Your task to perform on an android device: Open Chrome and go to the settings page Image 0: 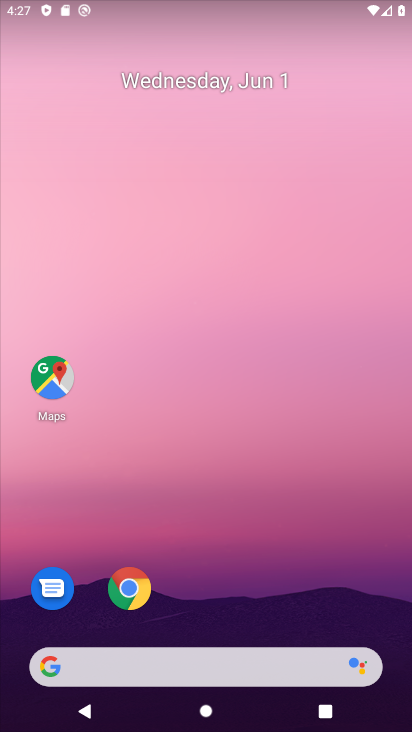
Step 0: click (131, 587)
Your task to perform on an android device: Open Chrome and go to the settings page Image 1: 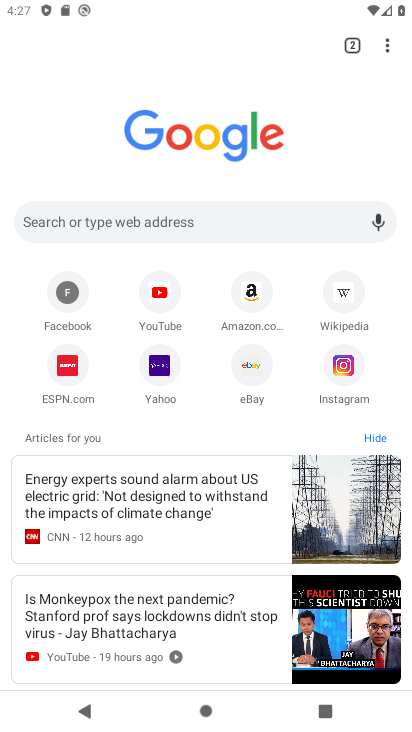
Step 1: click (388, 42)
Your task to perform on an android device: Open Chrome and go to the settings page Image 2: 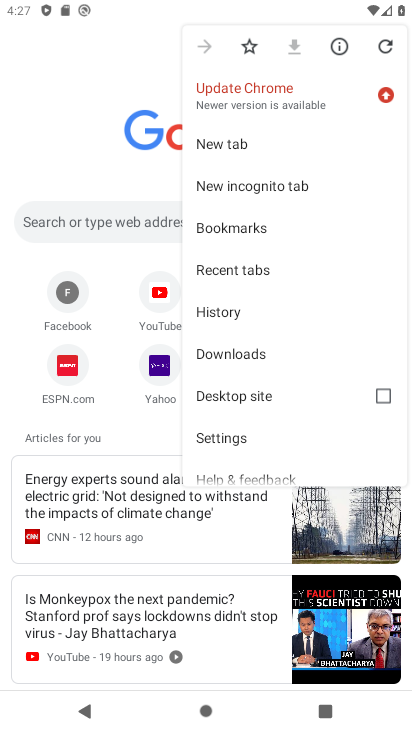
Step 2: click (239, 437)
Your task to perform on an android device: Open Chrome and go to the settings page Image 3: 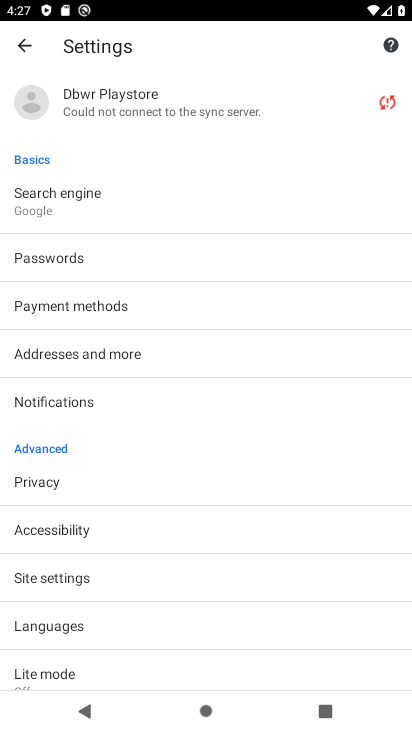
Step 3: task complete